Your task to perform on an android device: turn off airplane mode Image 0: 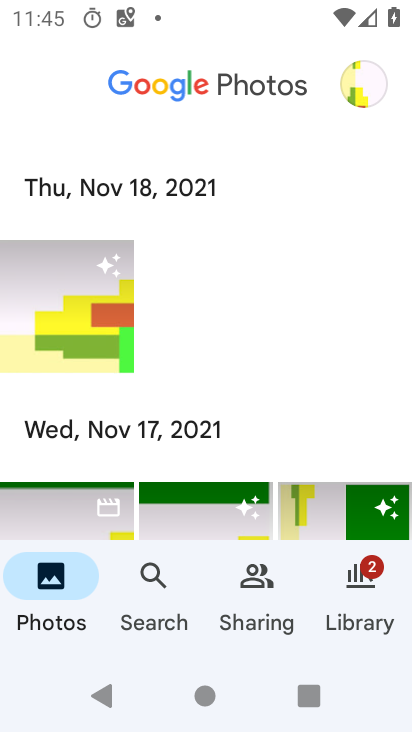
Step 0: press home button
Your task to perform on an android device: turn off airplane mode Image 1: 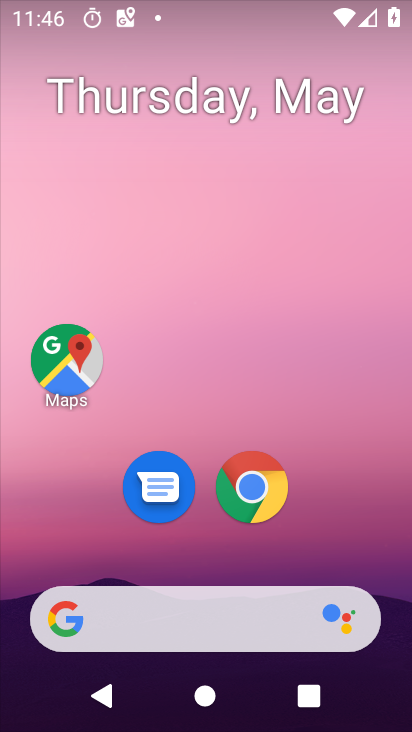
Step 1: drag from (314, 539) to (298, 349)
Your task to perform on an android device: turn off airplane mode Image 2: 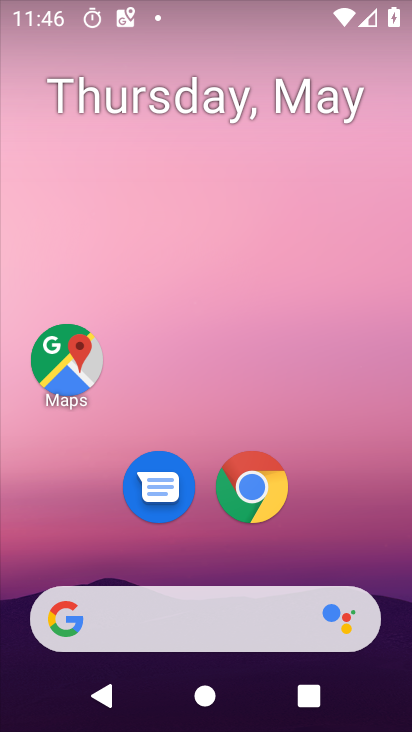
Step 2: drag from (281, 548) to (252, 223)
Your task to perform on an android device: turn off airplane mode Image 3: 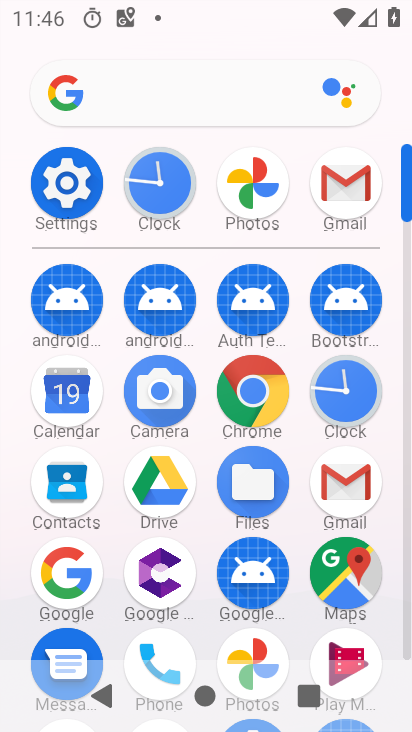
Step 3: click (46, 185)
Your task to perform on an android device: turn off airplane mode Image 4: 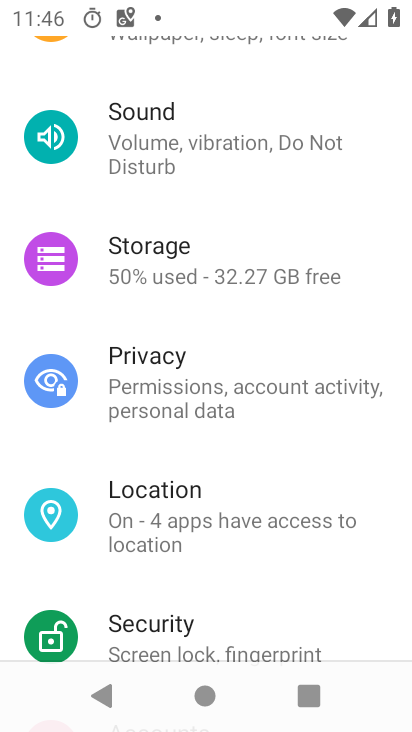
Step 4: drag from (254, 201) to (212, 570)
Your task to perform on an android device: turn off airplane mode Image 5: 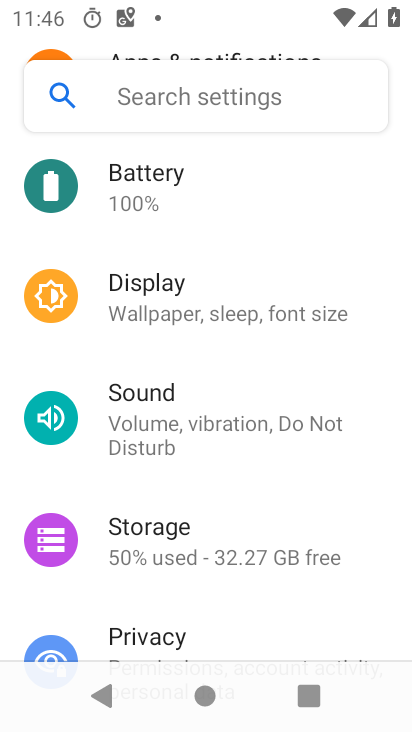
Step 5: drag from (211, 195) to (218, 543)
Your task to perform on an android device: turn off airplane mode Image 6: 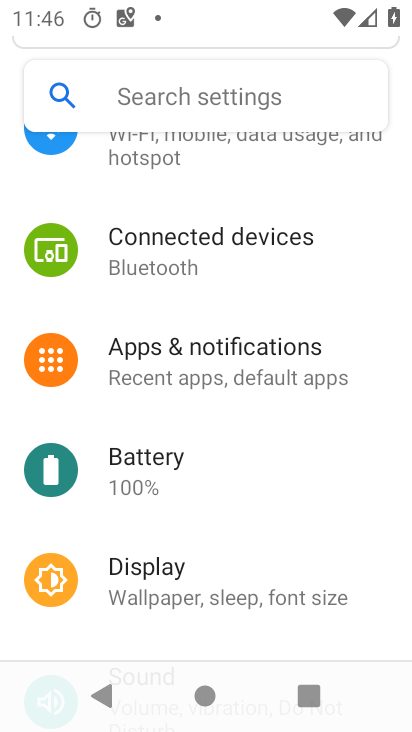
Step 6: drag from (237, 197) to (275, 508)
Your task to perform on an android device: turn off airplane mode Image 7: 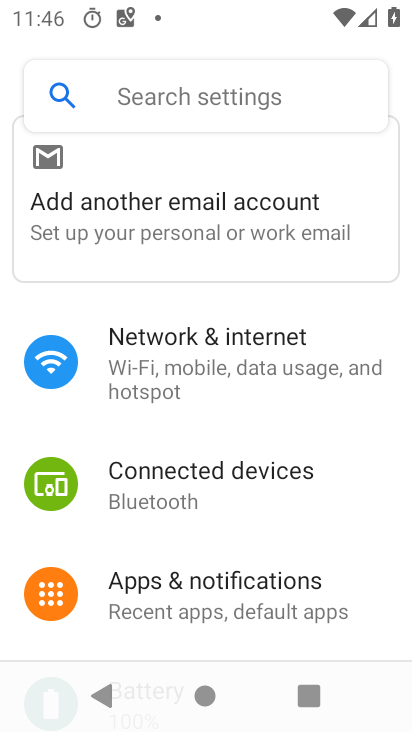
Step 7: click (224, 361)
Your task to perform on an android device: turn off airplane mode Image 8: 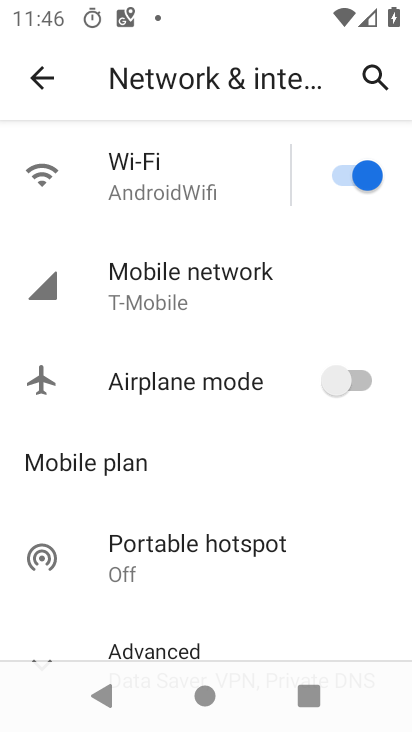
Step 8: task complete